Your task to perform on an android device: check google app version Image 0: 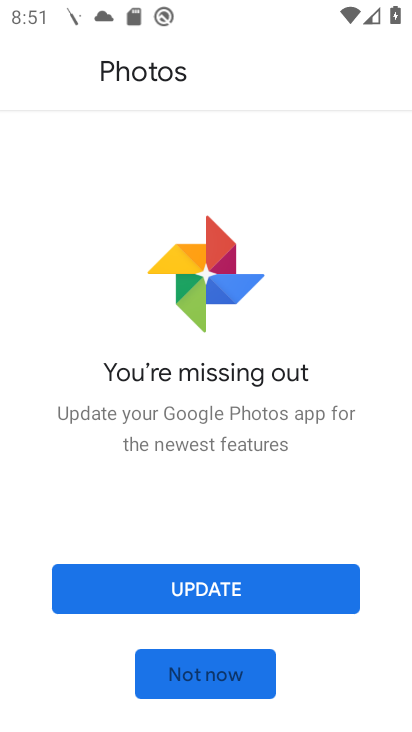
Step 0: press home button
Your task to perform on an android device: check google app version Image 1: 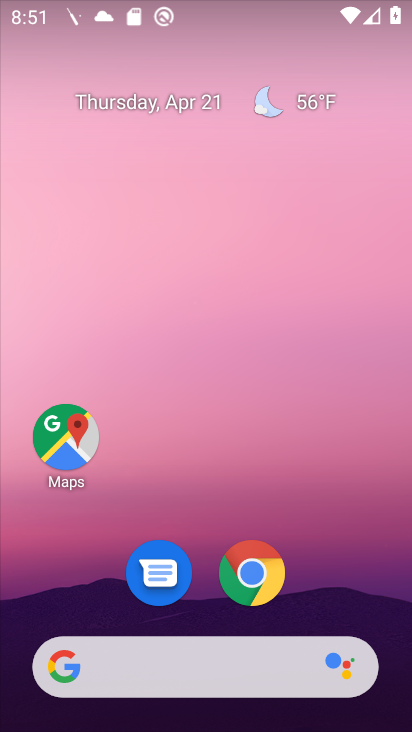
Step 1: drag from (198, 487) to (246, 27)
Your task to perform on an android device: check google app version Image 2: 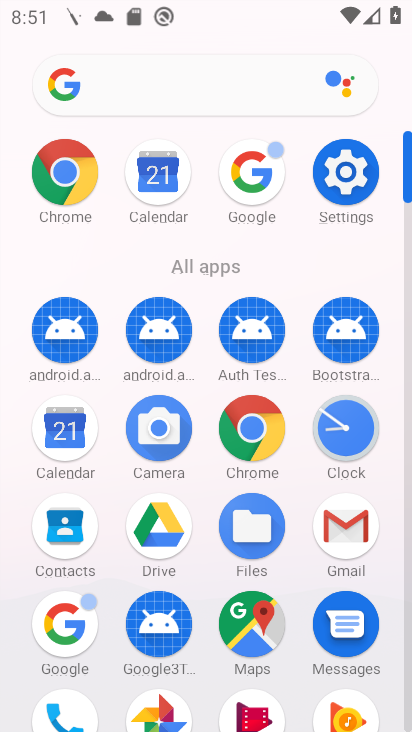
Step 2: click (246, 168)
Your task to perform on an android device: check google app version Image 3: 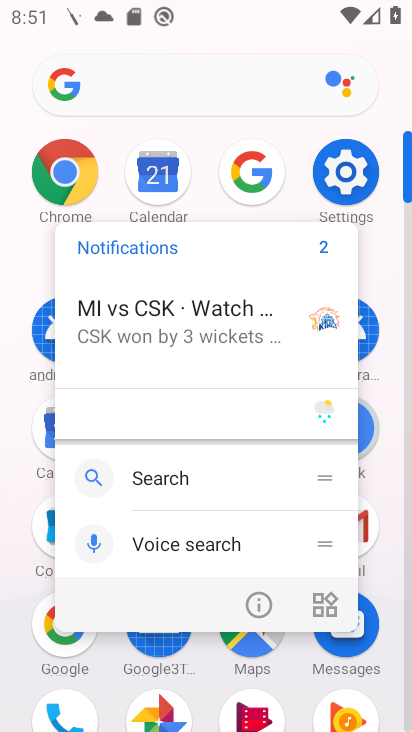
Step 3: click (262, 606)
Your task to perform on an android device: check google app version Image 4: 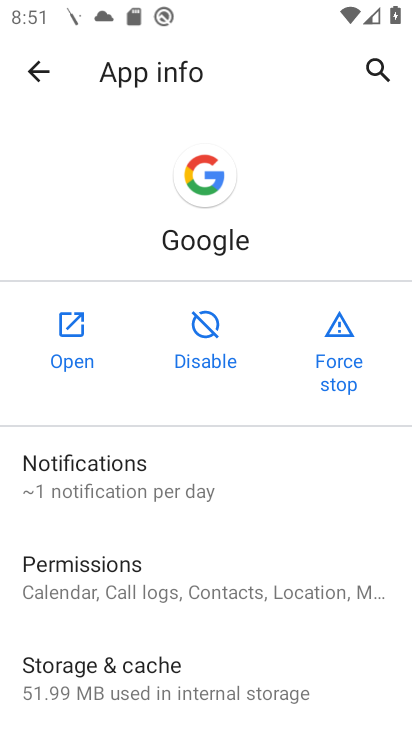
Step 4: drag from (195, 535) to (210, 308)
Your task to perform on an android device: check google app version Image 5: 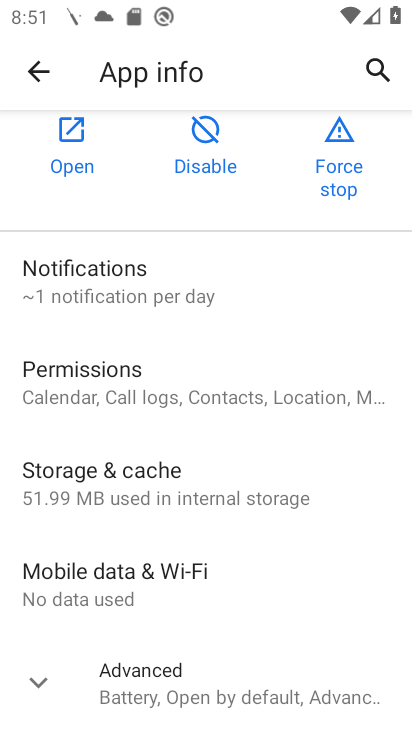
Step 5: click (189, 695)
Your task to perform on an android device: check google app version Image 6: 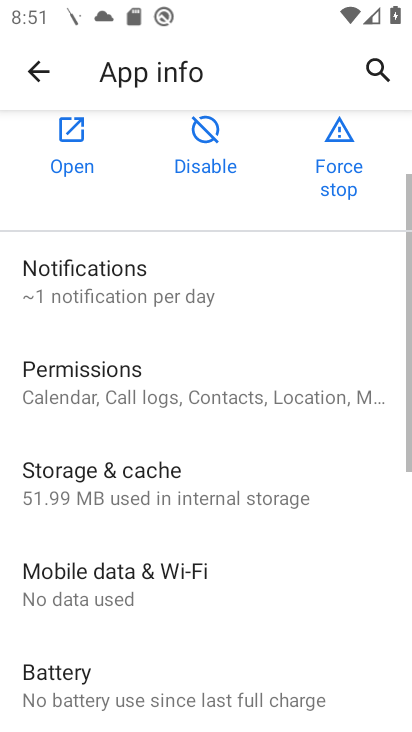
Step 6: task complete